Your task to perform on an android device: turn off notifications settings in the gmail app Image 0: 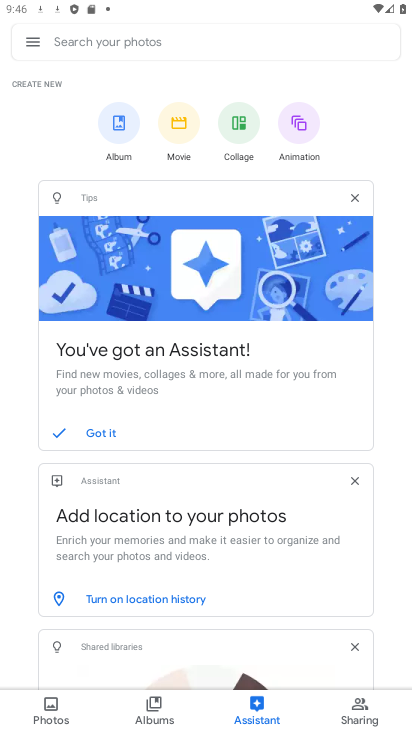
Step 0: press home button
Your task to perform on an android device: turn off notifications settings in the gmail app Image 1: 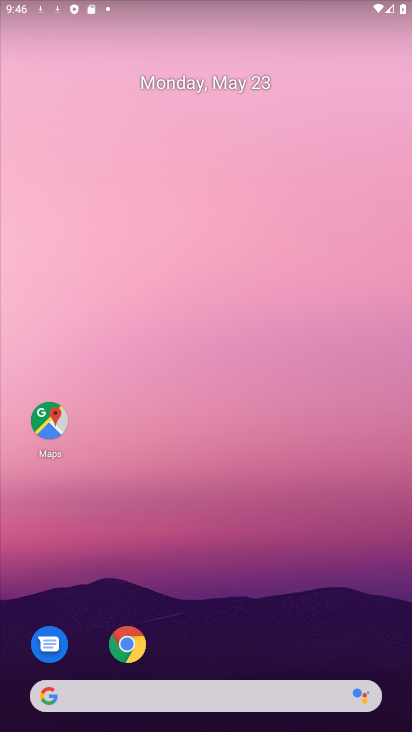
Step 1: drag from (287, 713) to (248, 250)
Your task to perform on an android device: turn off notifications settings in the gmail app Image 2: 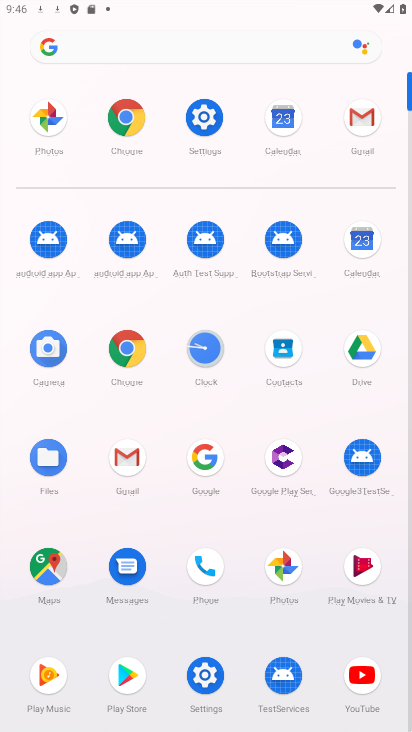
Step 2: click (123, 478)
Your task to perform on an android device: turn off notifications settings in the gmail app Image 3: 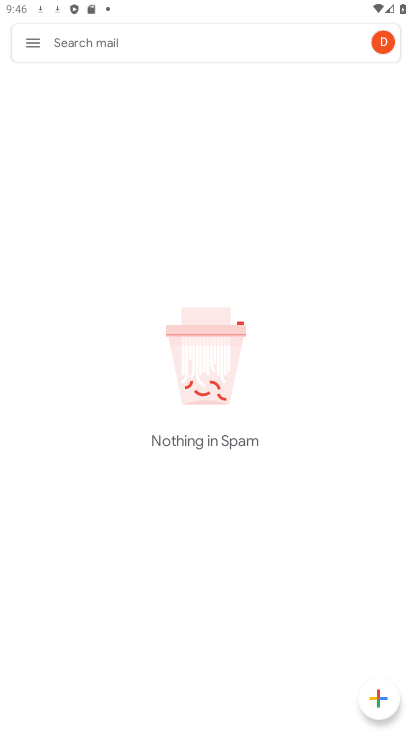
Step 3: click (32, 37)
Your task to perform on an android device: turn off notifications settings in the gmail app Image 4: 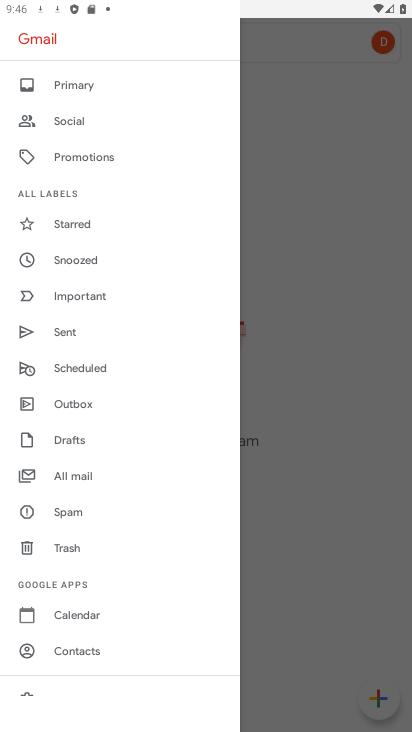
Step 4: drag from (63, 553) to (95, 484)
Your task to perform on an android device: turn off notifications settings in the gmail app Image 5: 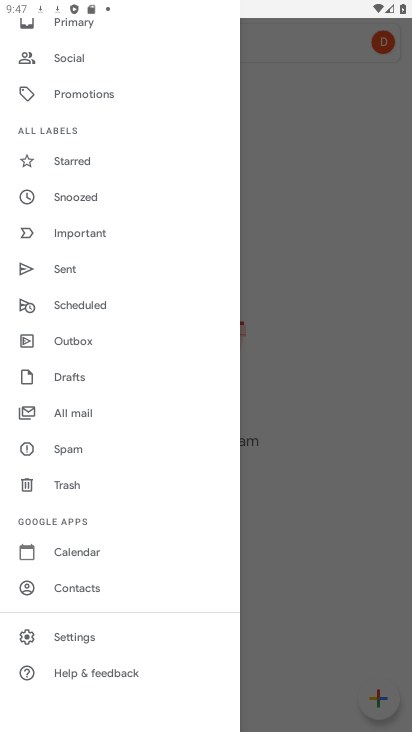
Step 5: click (61, 645)
Your task to perform on an android device: turn off notifications settings in the gmail app Image 6: 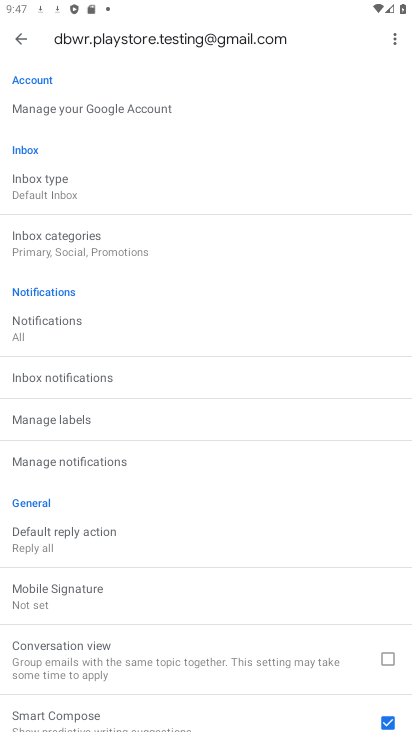
Step 6: click (71, 320)
Your task to perform on an android device: turn off notifications settings in the gmail app Image 7: 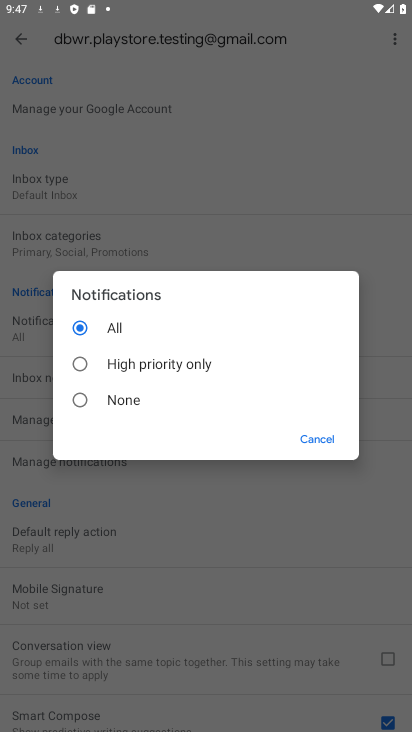
Step 7: click (111, 400)
Your task to perform on an android device: turn off notifications settings in the gmail app Image 8: 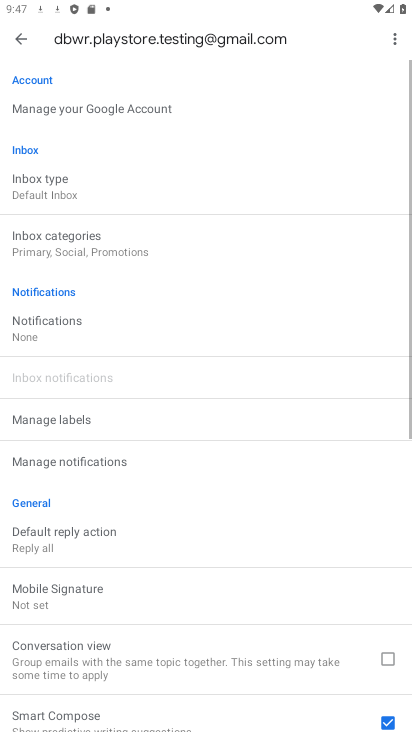
Step 8: task complete